Your task to perform on an android device: Clear the shopping cart on walmart.com. Search for "asus rog" on walmart.com, select the first entry, add it to the cart, then select checkout. Image 0: 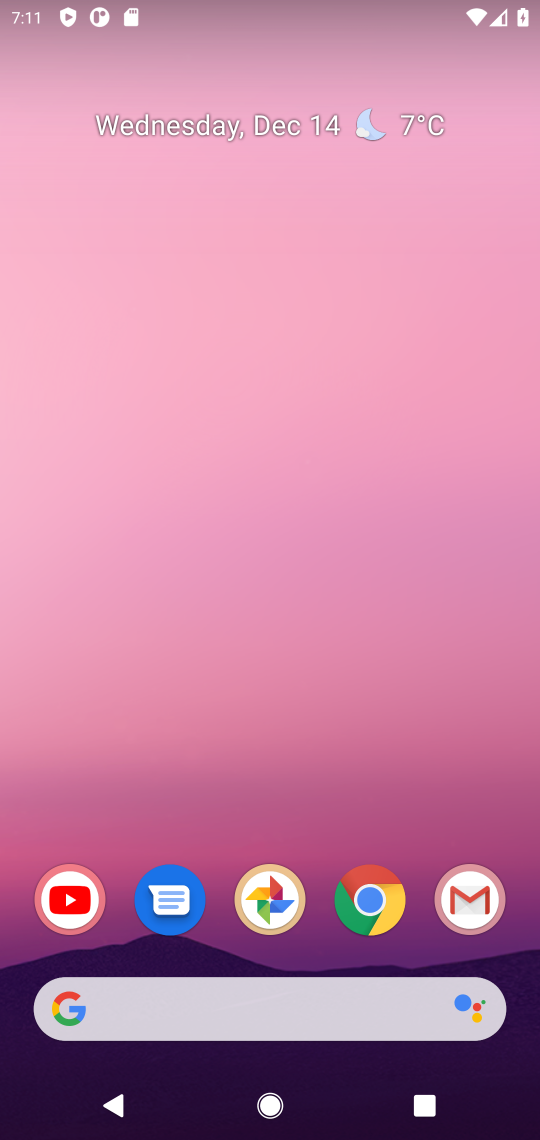
Step 0: click (253, 1005)
Your task to perform on an android device: Clear the shopping cart on walmart.com. Search for "asus rog" on walmart.com, select the first entry, add it to the cart, then select checkout. Image 1: 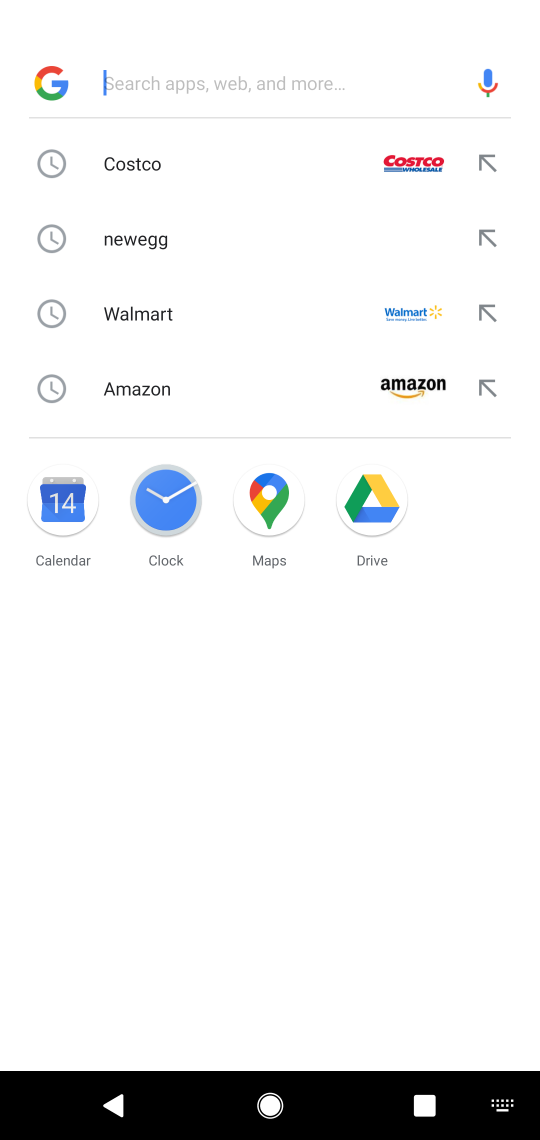
Step 1: type "walmart.com"
Your task to perform on an android device: Clear the shopping cart on walmart.com. Search for "asus rog" on walmart.com, select the first entry, add it to the cart, then select checkout. Image 2: 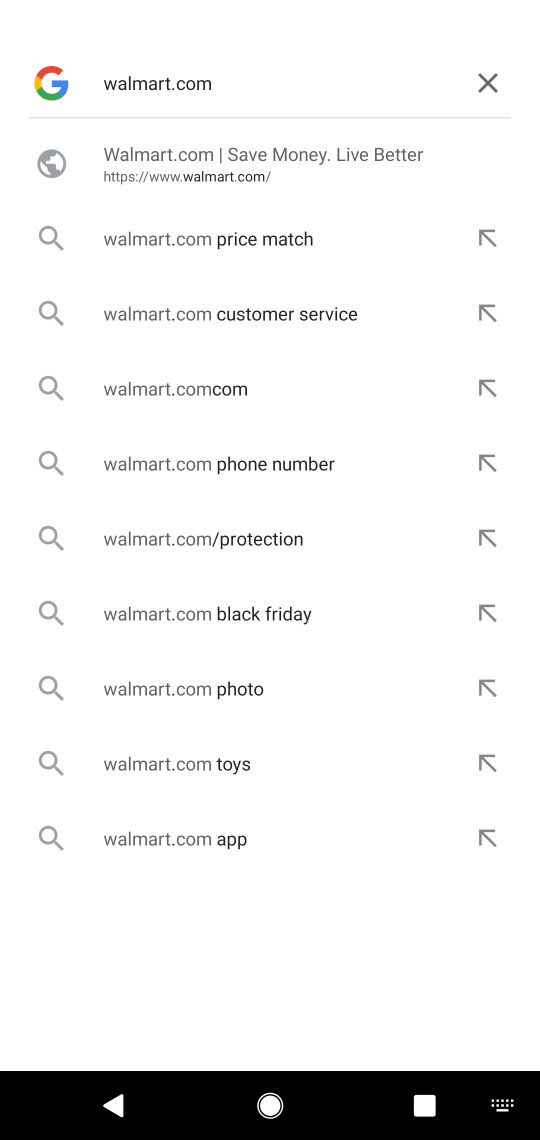
Step 2: click (197, 179)
Your task to perform on an android device: Clear the shopping cart on walmart.com. Search for "asus rog" on walmart.com, select the first entry, add it to the cart, then select checkout. Image 3: 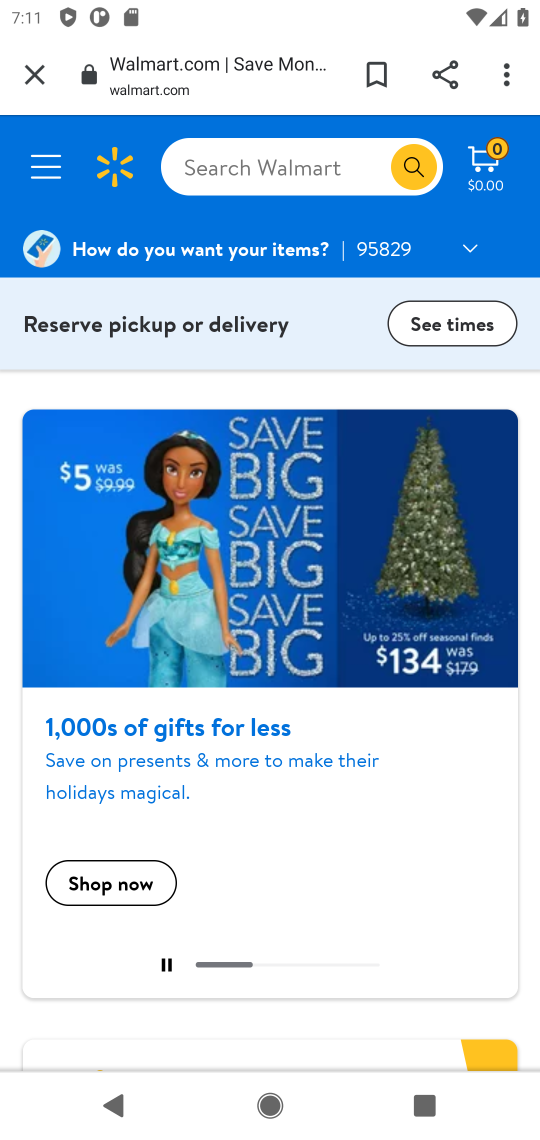
Step 3: drag from (354, 719) to (391, 586)
Your task to perform on an android device: Clear the shopping cart on walmart.com. Search for "asus rog" on walmart.com, select the first entry, add it to the cart, then select checkout. Image 4: 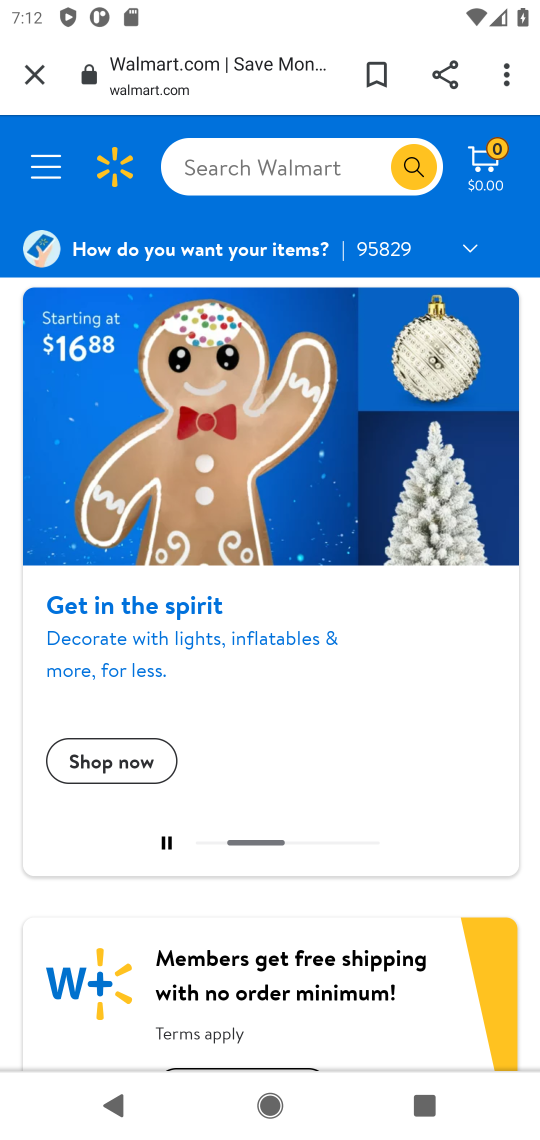
Step 4: drag from (309, 764) to (446, 289)
Your task to perform on an android device: Clear the shopping cart on walmart.com. Search for "asus rog" on walmart.com, select the first entry, add it to the cart, then select checkout. Image 5: 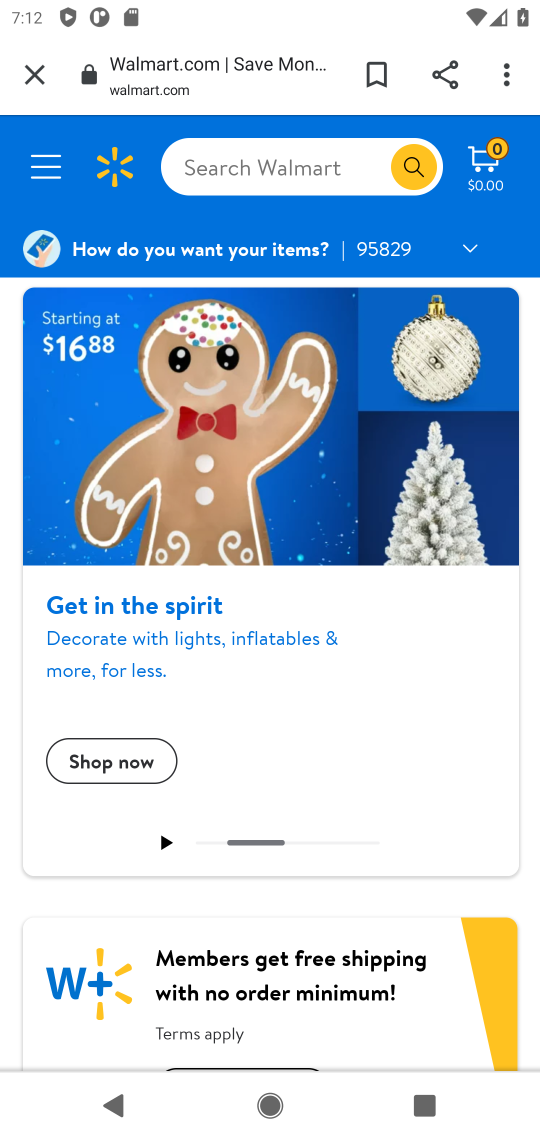
Step 5: click (475, 178)
Your task to perform on an android device: Clear the shopping cart on walmart.com. Search for "asus rog" on walmart.com, select the first entry, add it to the cart, then select checkout. Image 6: 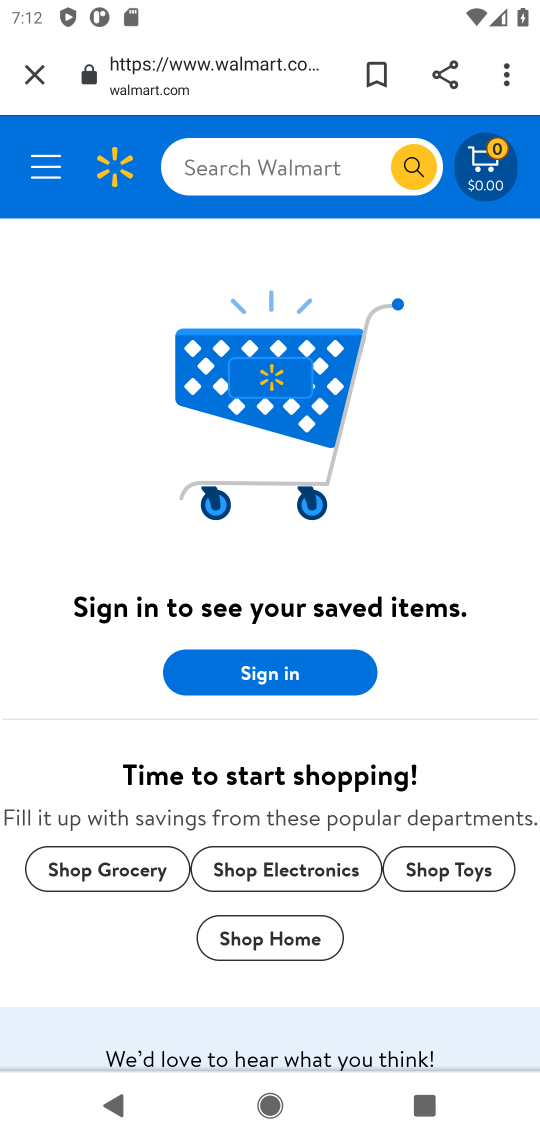
Step 6: click (311, 139)
Your task to perform on an android device: Clear the shopping cart on walmart.com. Search for "asus rog" on walmart.com, select the first entry, add it to the cart, then select checkout. Image 7: 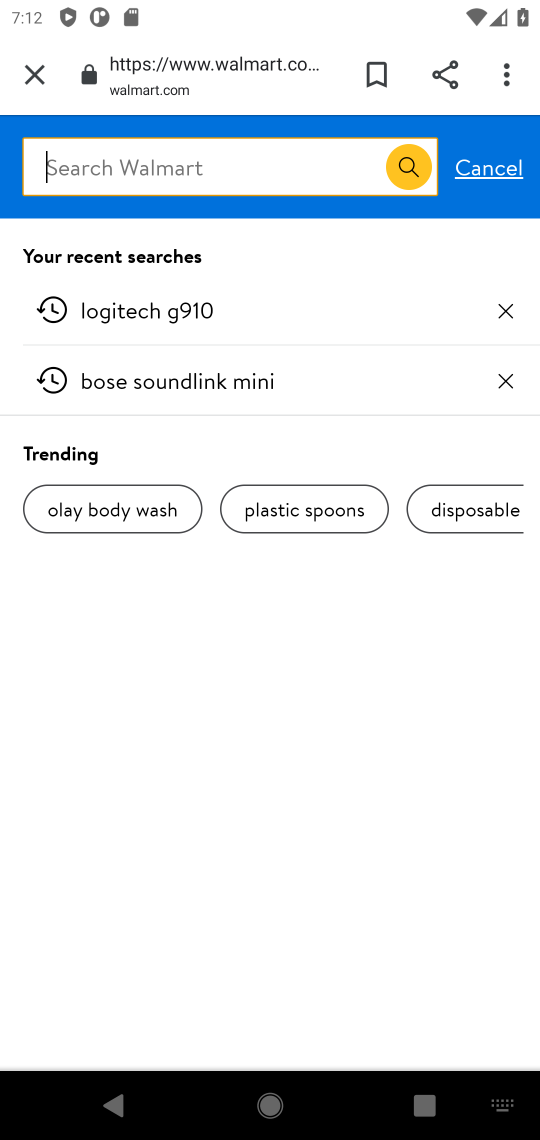
Step 7: type "asus rog"
Your task to perform on an android device: Clear the shopping cart on walmart.com. Search for "asus rog" on walmart.com, select the first entry, add it to the cart, then select checkout. Image 8: 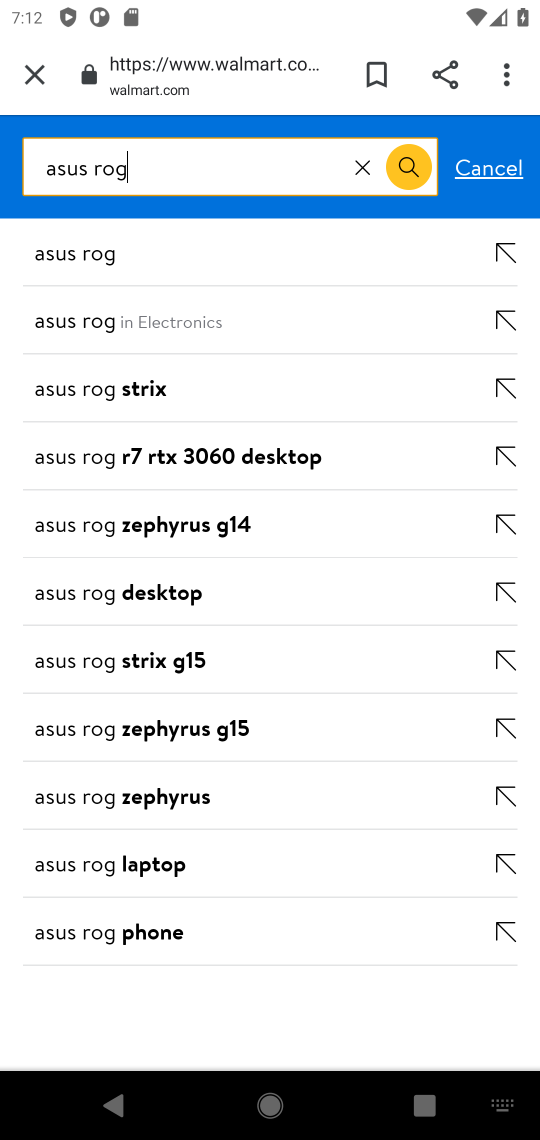
Step 8: click (70, 254)
Your task to perform on an android device: Clear the shopping cart on walmart.com. Search for "asus rog" on walmart.com, select the first entry, add it to the cart, then select checkout. Image 9: 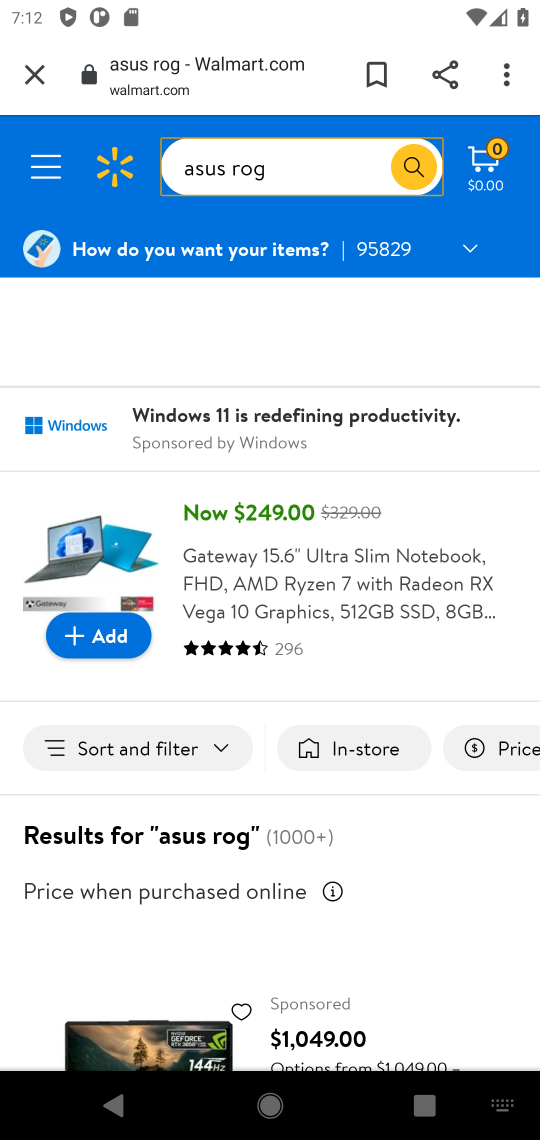
Step 9: drag from (359, 956) to (464, 382)
Your task to perform on an android device: Clear the shopping cart on walmart.com. Search for "asus rog" on walmart.com, select the first entry, add it to the cart, then select checkout. Image 10: 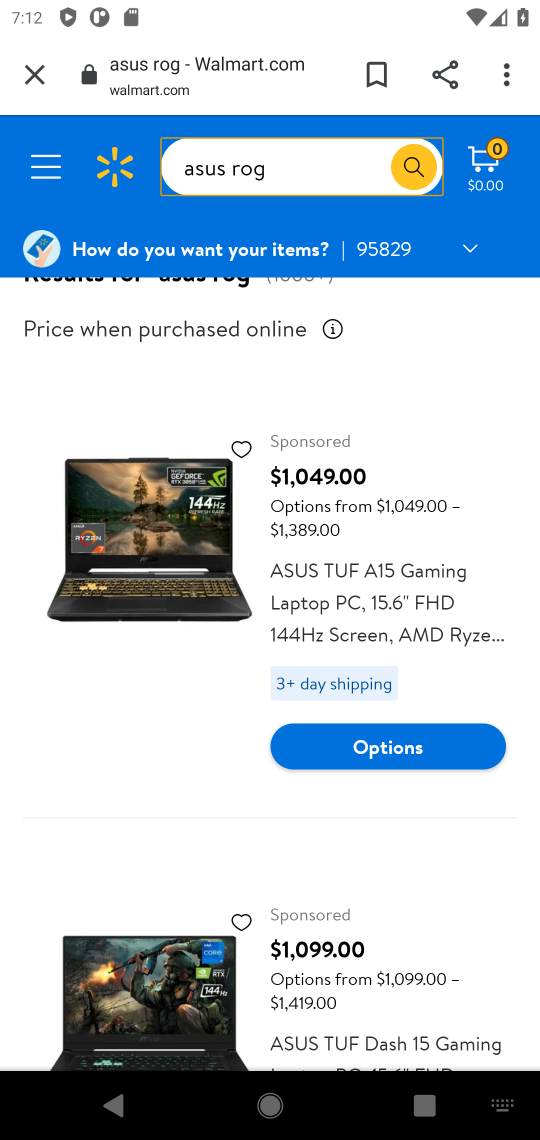
Step 10: click (341, 751)
Your task to perform on an android device: Clear the shopping cart on walmart.com. Search for "asus rog" on walmart.com, select the first entry, add it to the cart, then select checkout. Image 11: 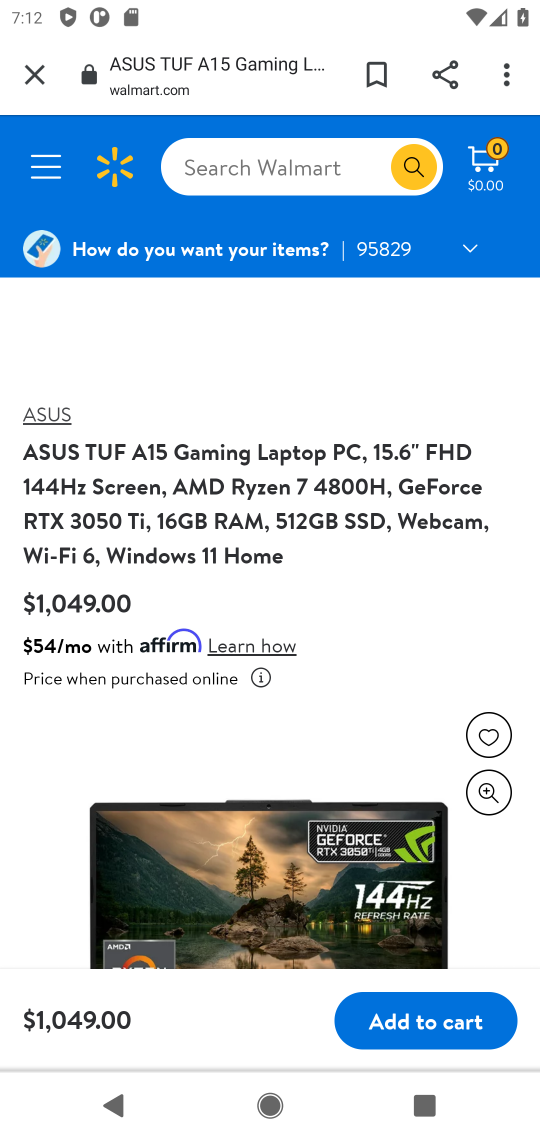
Step 11: click (446, 1035)
Your task to perform on an android device: Clear the shopping cart on walmart.com. Search for "asus rog" on walmart.com, select the first entry, add it to the cart, then select checkout. Image 12: 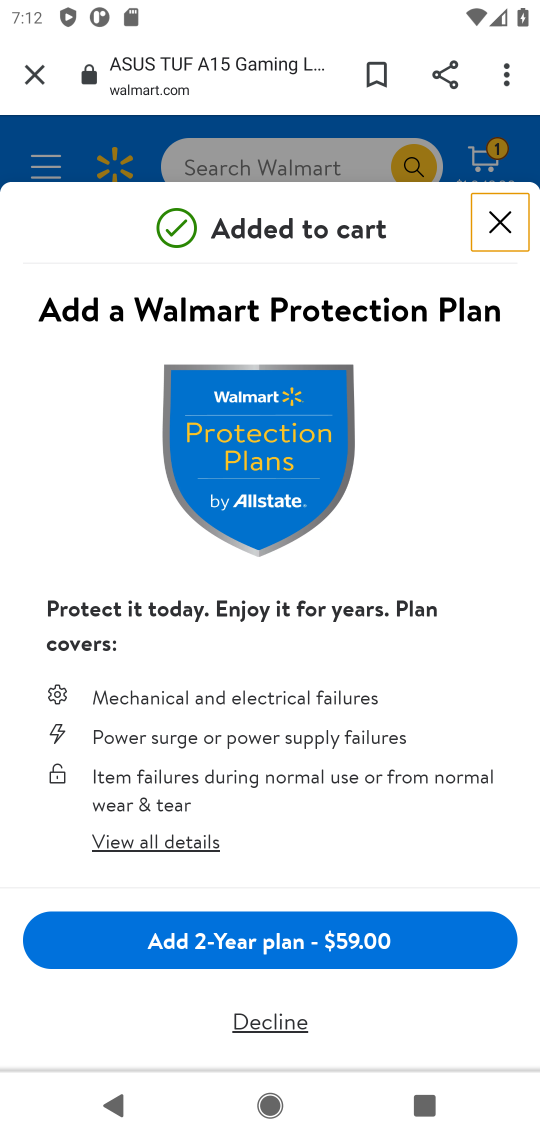
Step 12: click (492, 222)
Your task to perform on an android device: Clear the shopping cart on walmart.com. Search for "asus rog" on walmart.com, select the first entry, add it to the cart, then select checkout. Image 13: 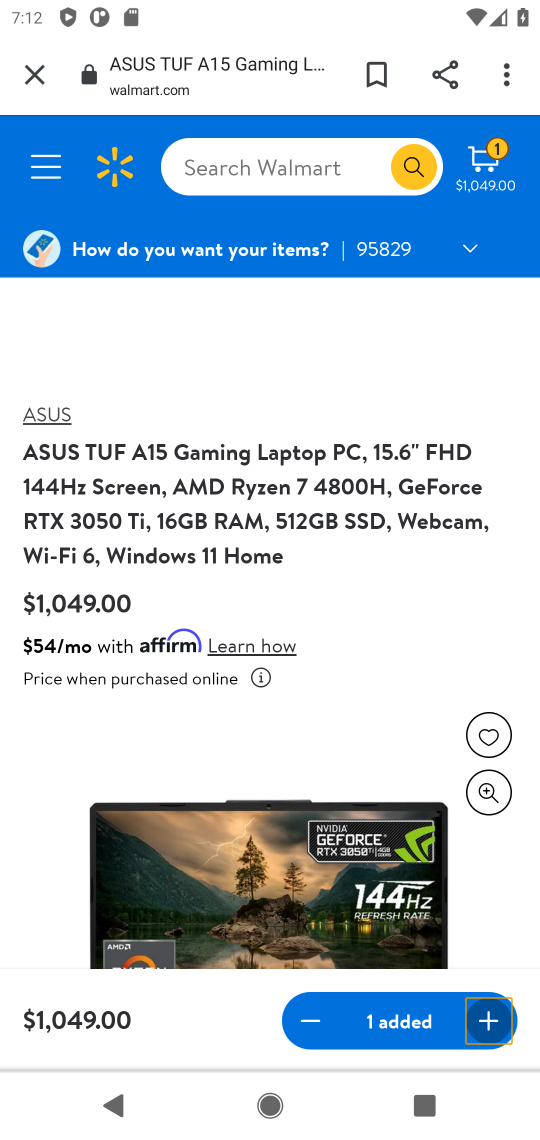
Step 13: click (485, 162)
Your task to perform on an android device: Clear the shopping cart on walmart.com. Search for "asus rog" on walmart.com, select the first entry, add it to the cart, then select checkout. Image 14: 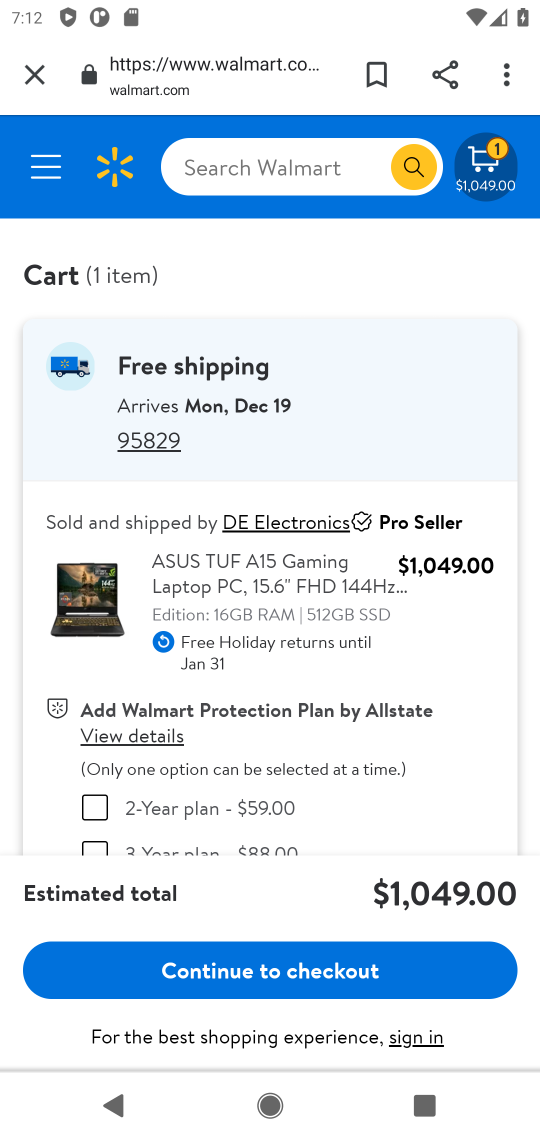
Step 14: click (280, 959)
Your task to perform on an android device: Clear the shopping cart on walmart.com. Search for "asus rog" on walmart.com, select the first entry, add it to the cart, then select checkout. Image 15: 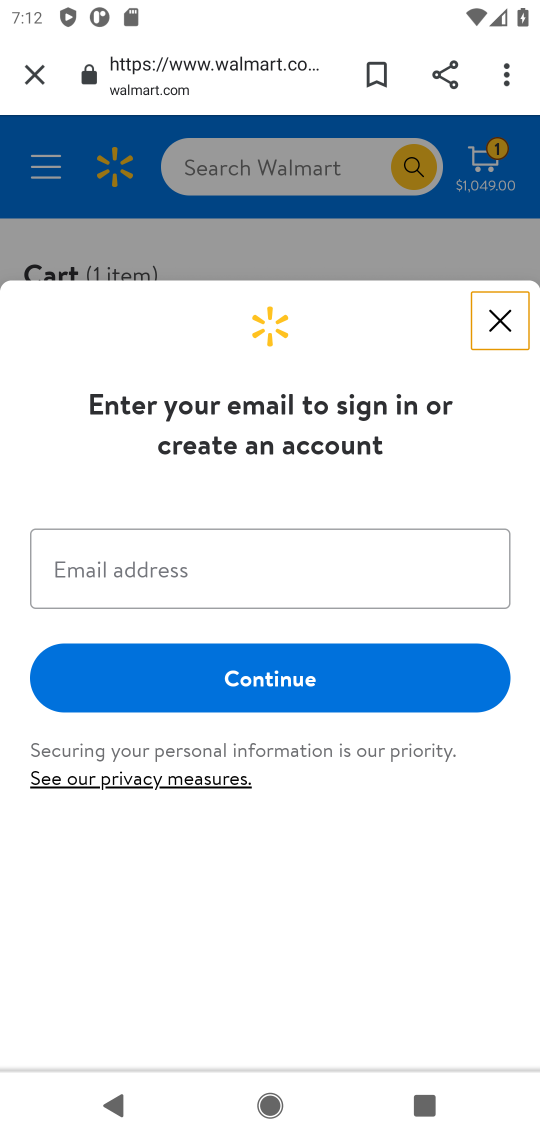
Step 15: task complete